Your task to perform on an android device: Open my contact list Image 0: 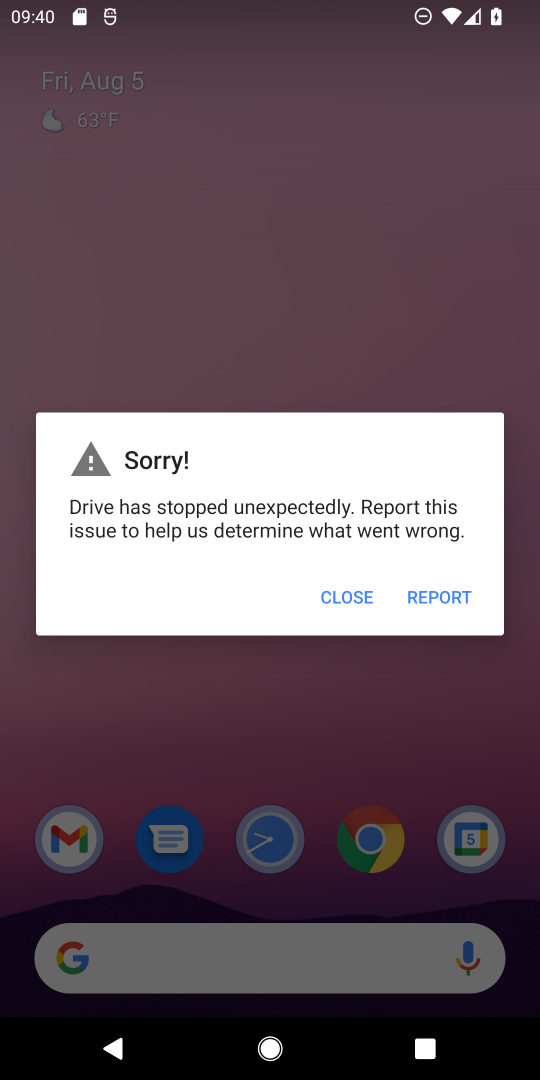
Step 0: press home button
Your task to perform on an android device: Open my contact list Image 1: 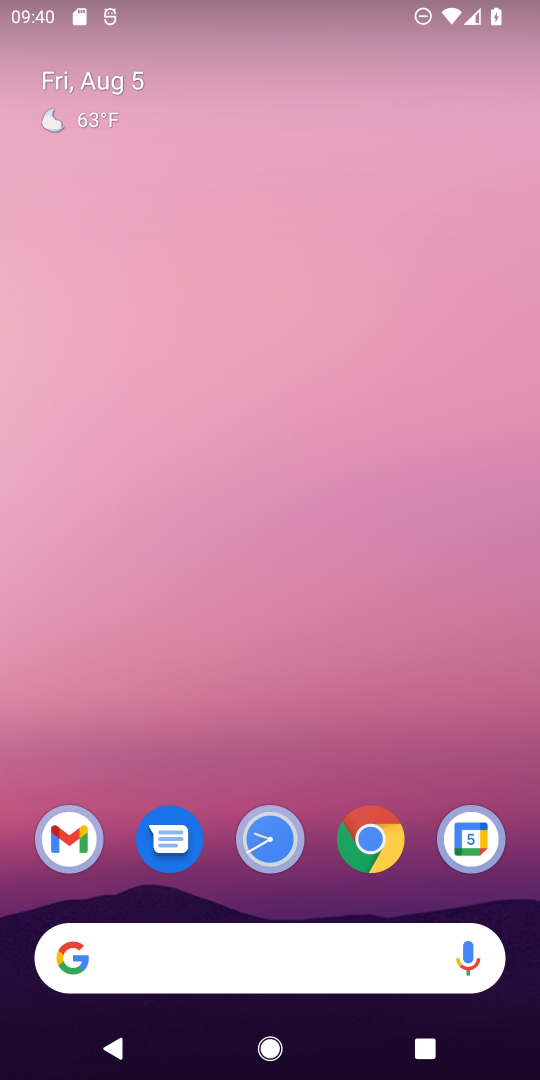
Step 1: drag from (315, 814) to (292, 372)
Your task to perform on an android device: Open my contact list Image 2: 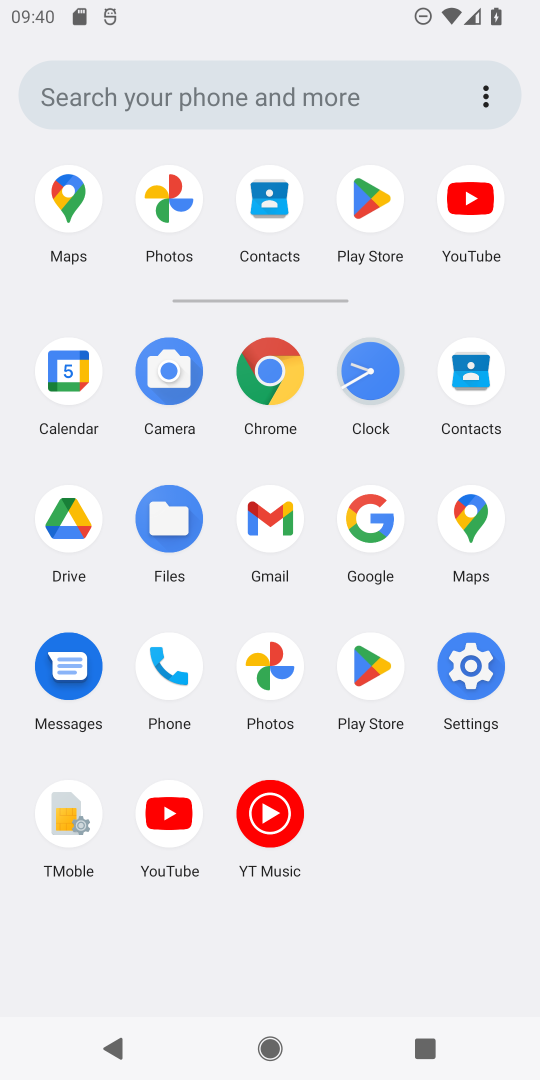
Step 2: click (467, 381)
Your task to perform on an android device: Open my contact list Image 3: 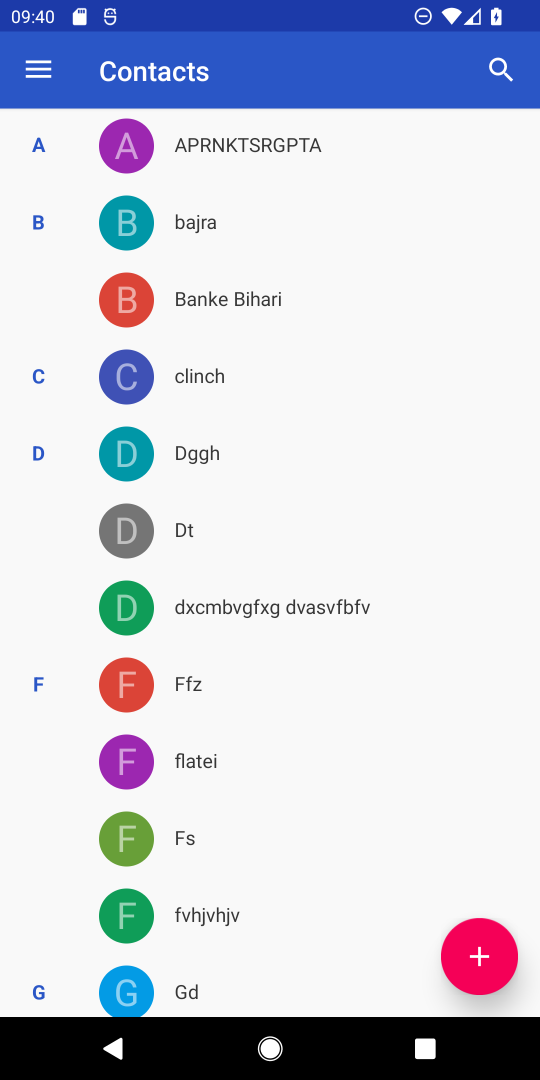
Step 3: task complete